Your task to perform on an android device: Show me popular games on the Play Store Image 0: 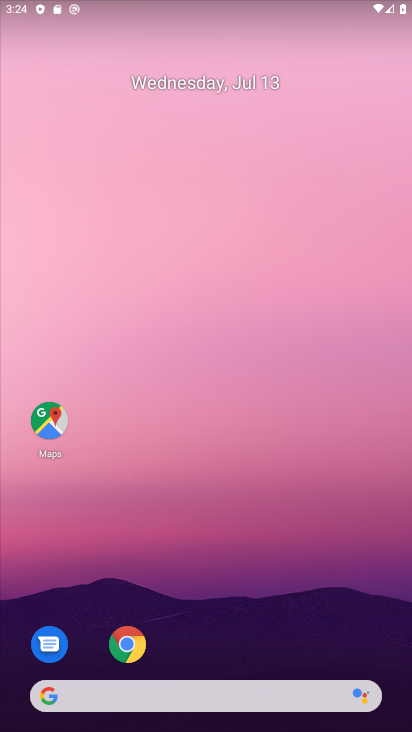
Step 0: drag from (201, 652) to (189, 206)
Your task to perform on an android device: Show me popular games on the Play Store Image 1: 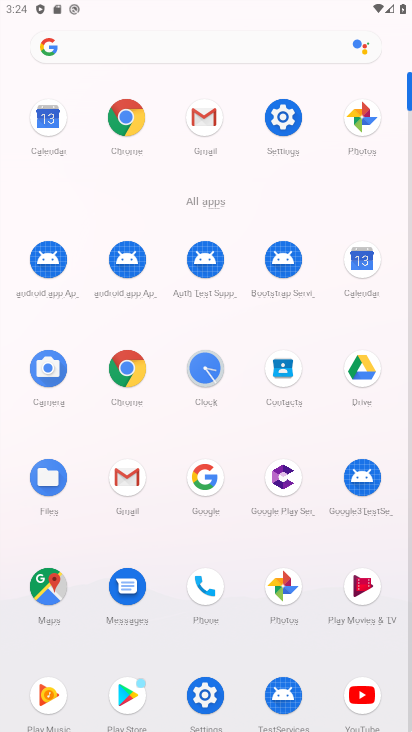
Step 1: click (133, 689)
Your task to perform on an android device: Show me popular games on the Play Store Image 2: 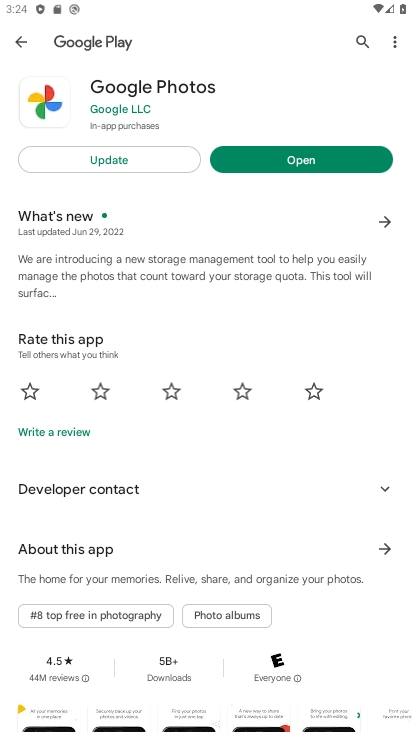
Step 2: click (22, 35)
Your task to perform on an android device: Show me popular games on the Play Store Image 3: 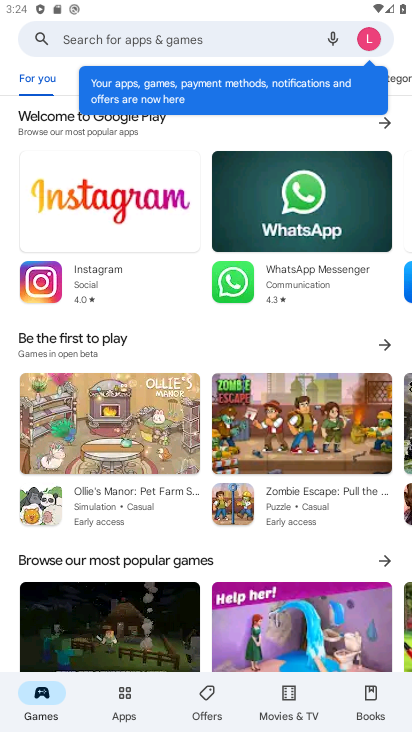
Step 3: click (75, 83)
Your task to perform on an android device: Show me popular games on the Play Store Image 4: 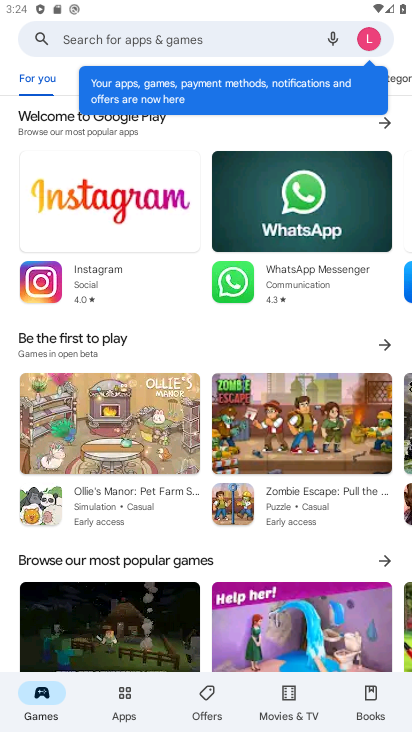
Step 4: click (95, 86)
Your task to perform on an android device: Show me popular games on the Play Store Image 5: 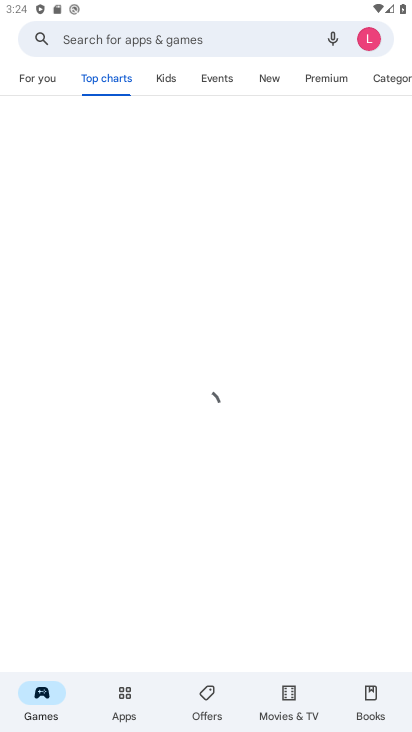
Step 5: click (103, 86)
Your task to perform on an android device: Show me popular games on the Play Store Image 6: 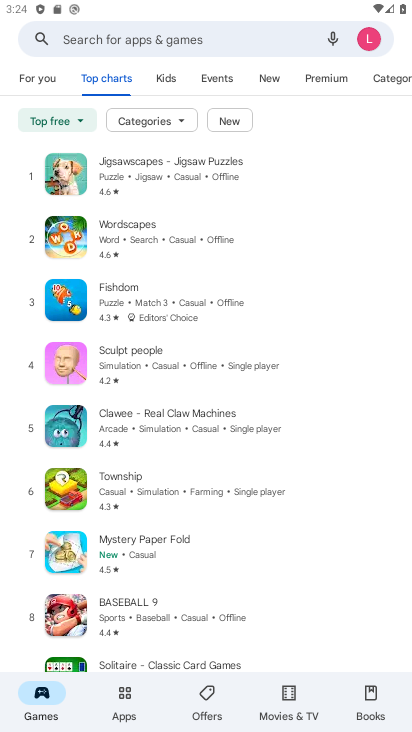
Step 6: task complete